Your task to perform on an android device: Is it going to rain this weekend? Image 0: 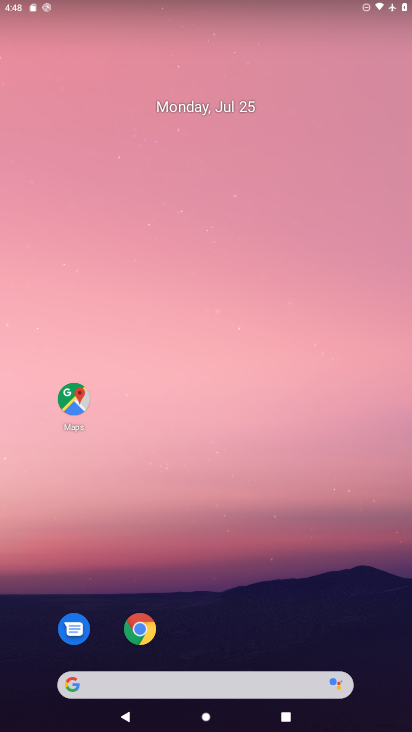
Step 0: drag from (221, 607) to (319, 0)
Your task to perform on an android device: Is it going to rain this weekend? Image 1: 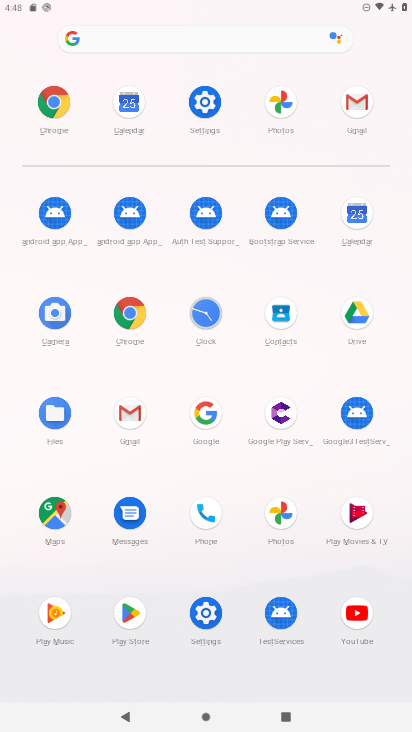
Step 1: click (353, 217)
Your task to perform on an android device: Is it going to rain this weekend? Image 2: 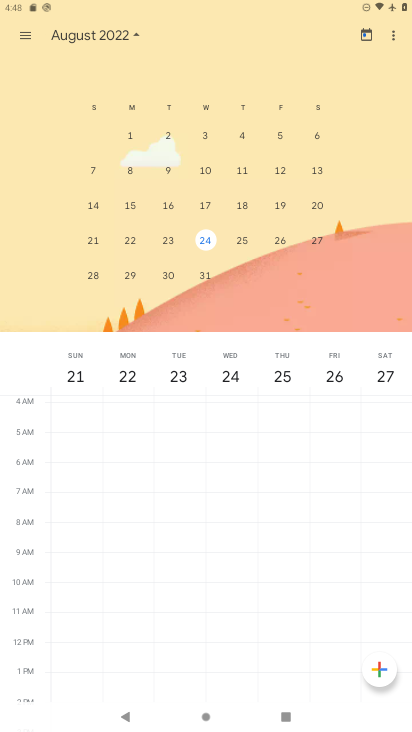
Step 2: click (319, 238)
Your task to perform on an android device: Is it going to rain this weekend? Image 3: 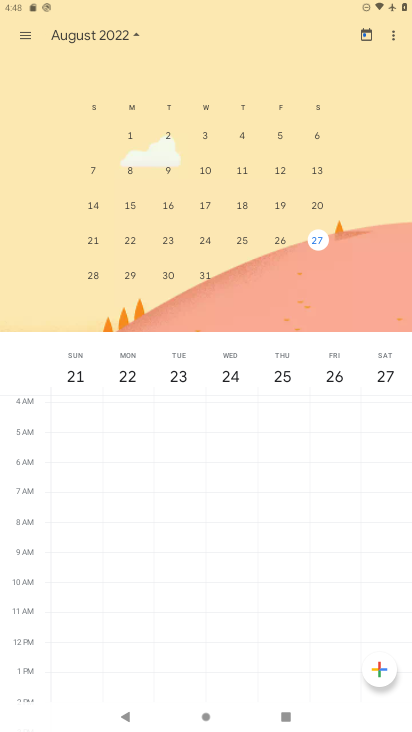
Step 3: task complete